Your task to perform on an android device: turn off translation in the chrome app Image 0: 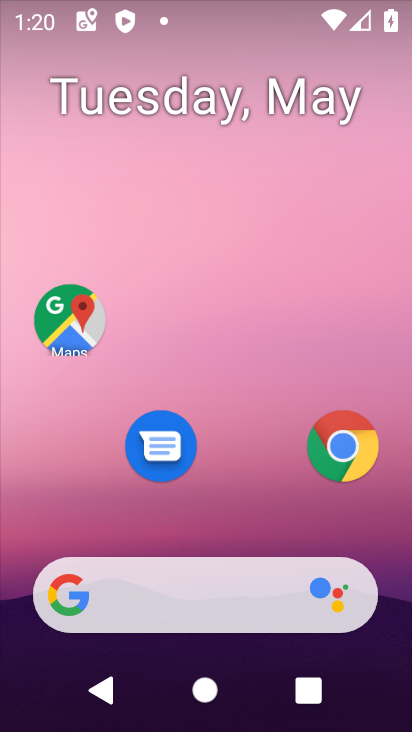
Step 0: drag from (230, 552) to (187, 4)
Your task to perform on an android device: turn off translation in the chrome app Image 1: 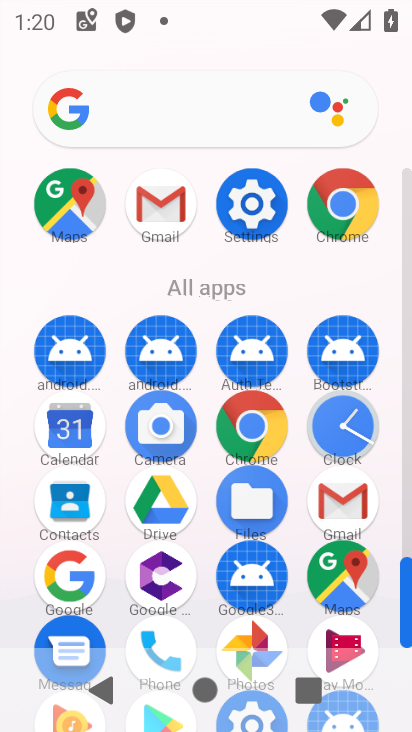
Step 1: click (257, 416)
Your task to perform on an android device: turn off translation in the chrome app Image 2: 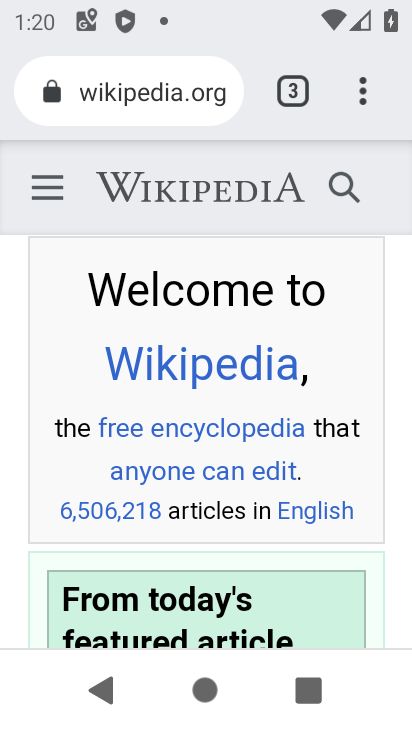
Step 2: click (367, 97)
Your task to perform on an android device: turn off translation in the chrome app Image 3: 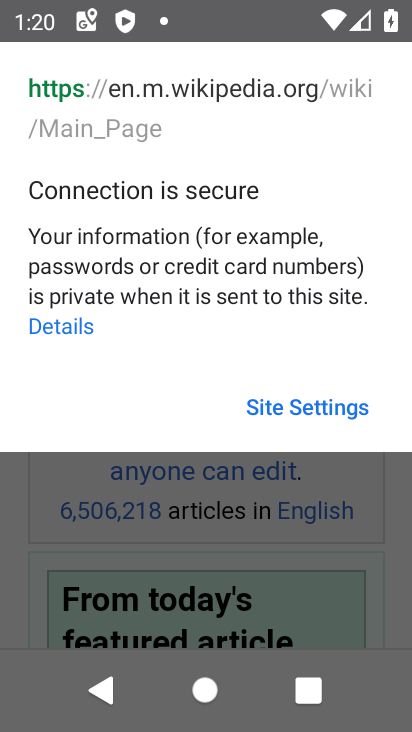
Step 3: click (337, 489)
Your task to perform on an android device: turn off translation in the chrome app Image 4: 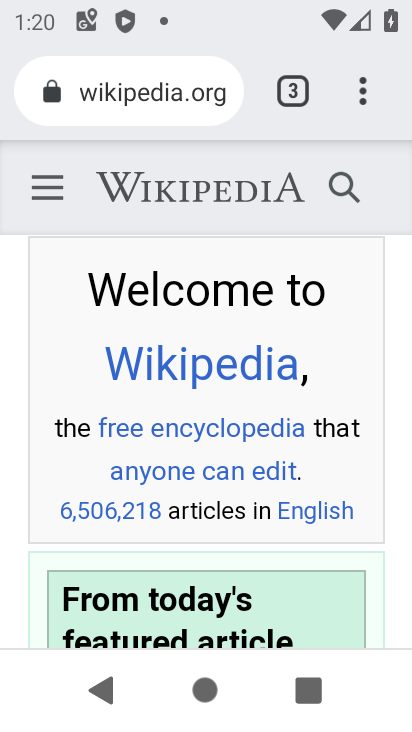
Step 4: click (377, 84)
Your task to perform on an android device: turn off translation in the chrome app Image 5: 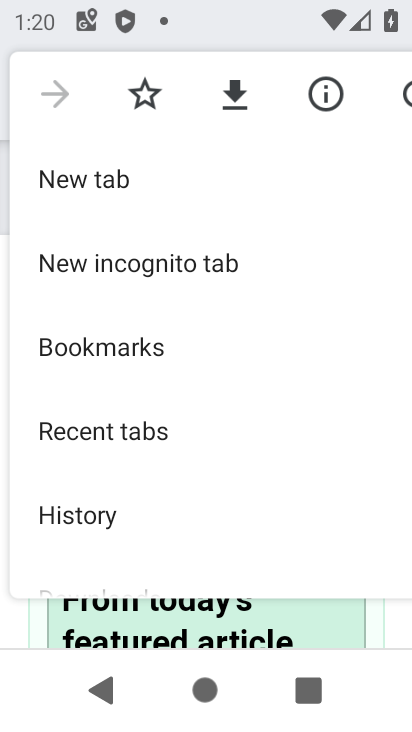
Step 5: drag from (264, 533) to (254, 123)
Your task to perform on an android device: turn off translation in the chrome app Image 6: 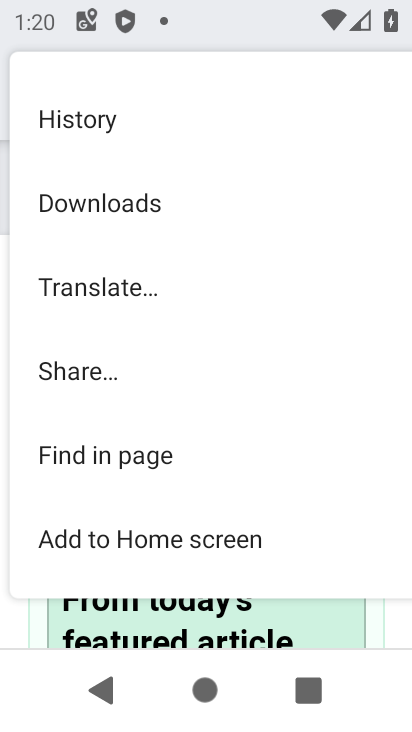
Step 6: drag from (117, 503) to (58, 154)
Your task to perform on an android device: turn off translation in the chrome app Image 7: 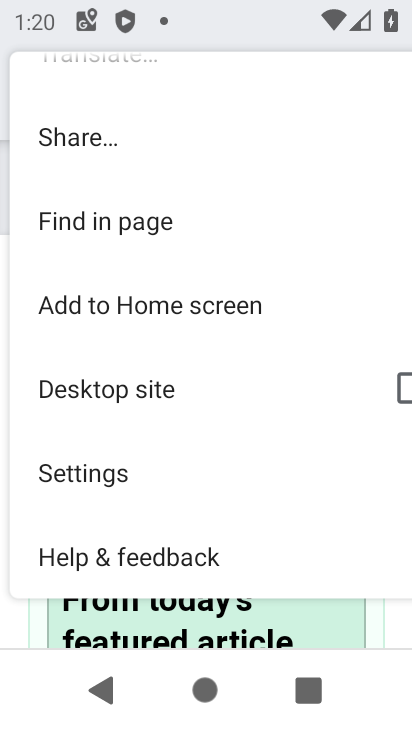
Step 7: click (93, 468)
Your task to perform on an android device: turn off translation in the chrome app Image 8: 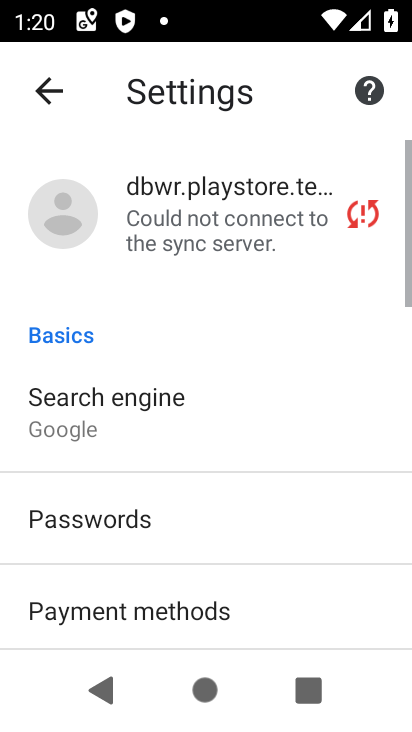
Step 8: drag from (148, 524) to (123, 120)
Your task to perform on an android device: turn off translation in the chrome app Image 9: 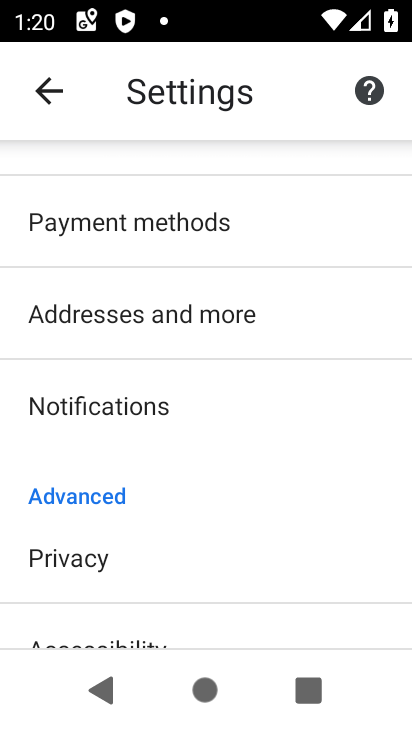
Step 9: drag from (182, 554) to (180, 236)
Your task to perform on an android device: turn off translation in the chrome app Image 10: 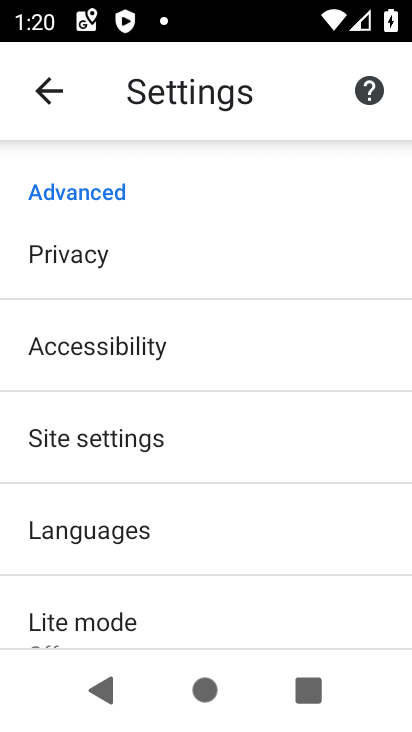
Step 10: drag from (177, 590) to (174, 429)
Your task to perform on an android device: turn off translation in the chrome app Image 11: 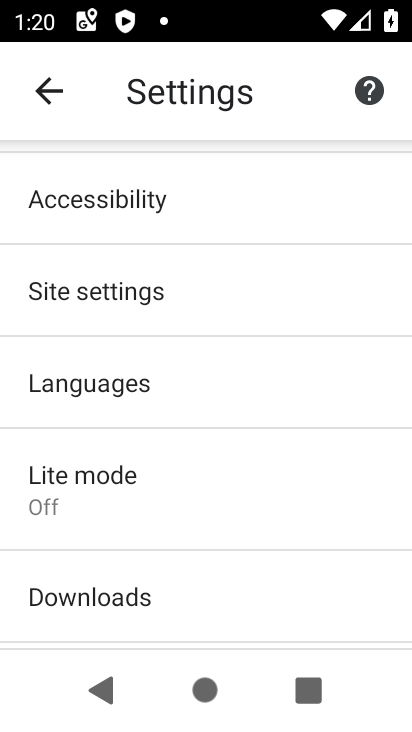
Step 11: click (114, 387)
Your task to perform on an android device: turn off translation in the chrome app Image 12: 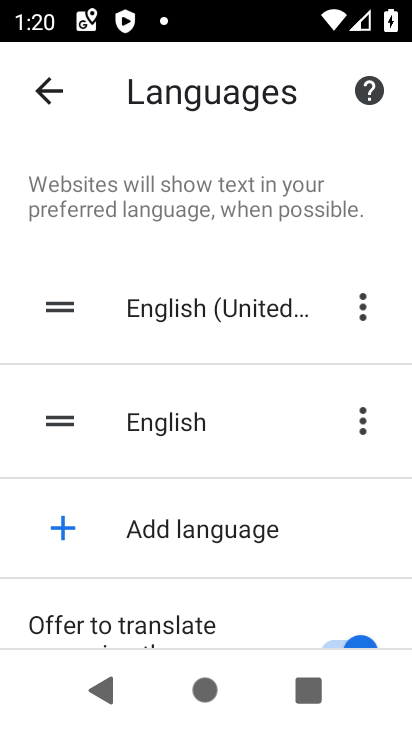
Step 12: click (360, 620)
Your task to perform on an android device: turn off translation in the chrome app Image 13: 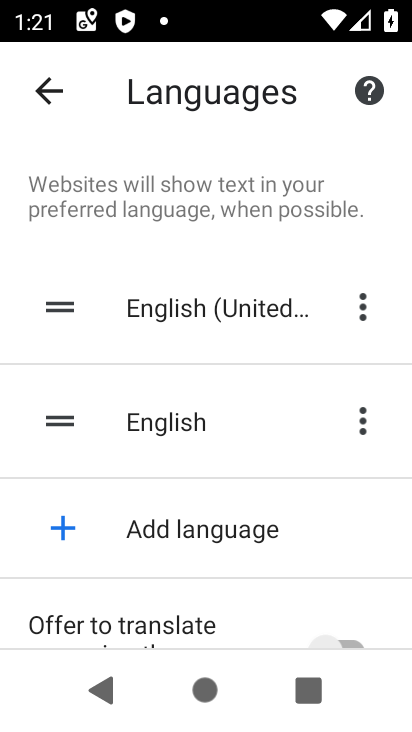
Step 13: task complete